Your task to perform on an android device: What's the weather? Image 0: 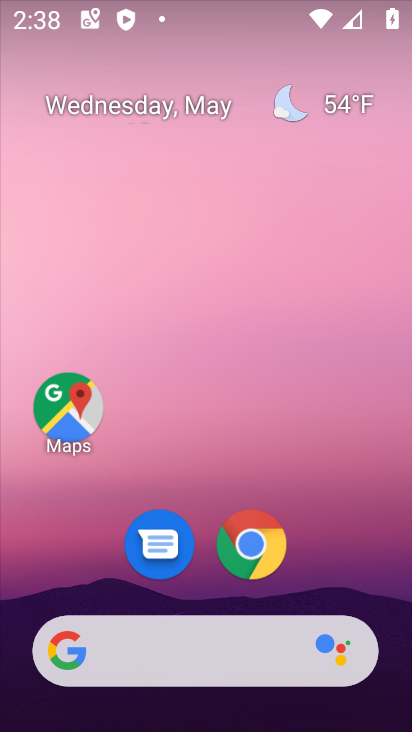
Step 0: drag from (339, 596) to (178, 200)
Your task to perform on an android device: What's the weather? Image 1: 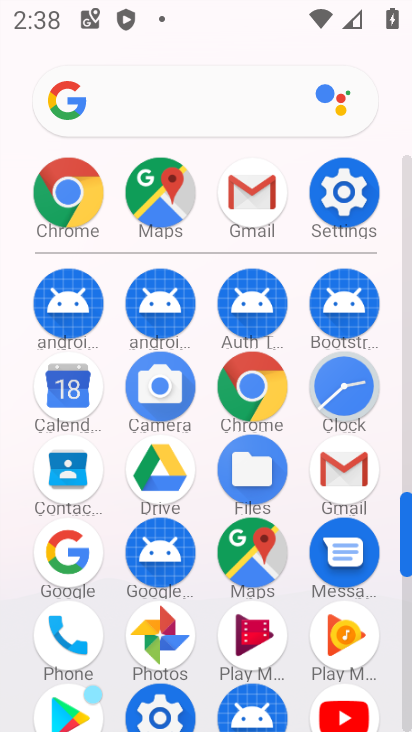
Step 1: click (151, 106)
Your task to perform on an android device: What's the weather? Image 2: 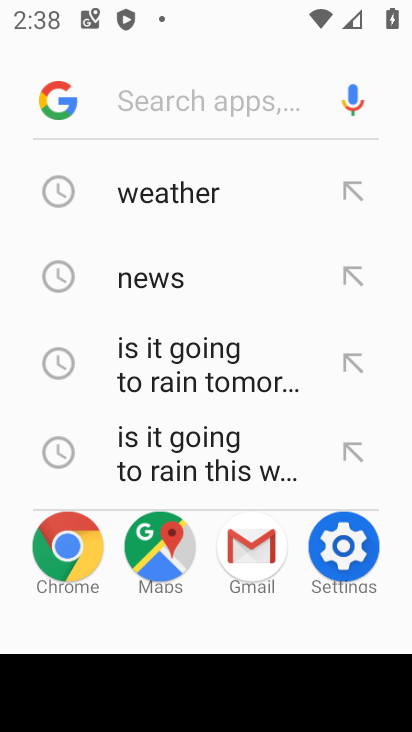
Step 2: click (169, 168)
Your task to perform on an android device: What's the weather? Image 3: 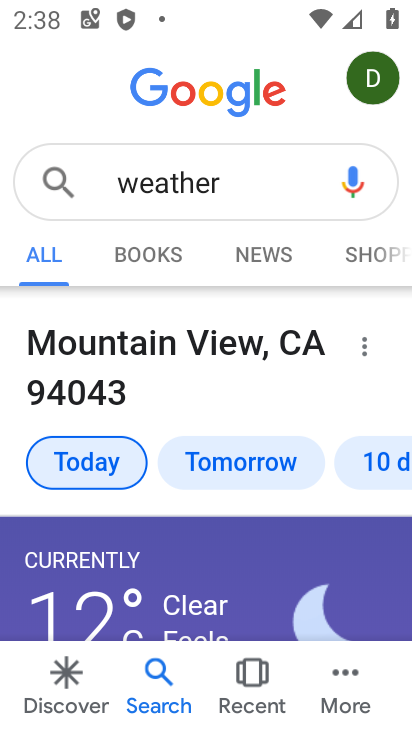
Step 3: task complete